Your task to perform on an android device: toggle wifi Image 0: 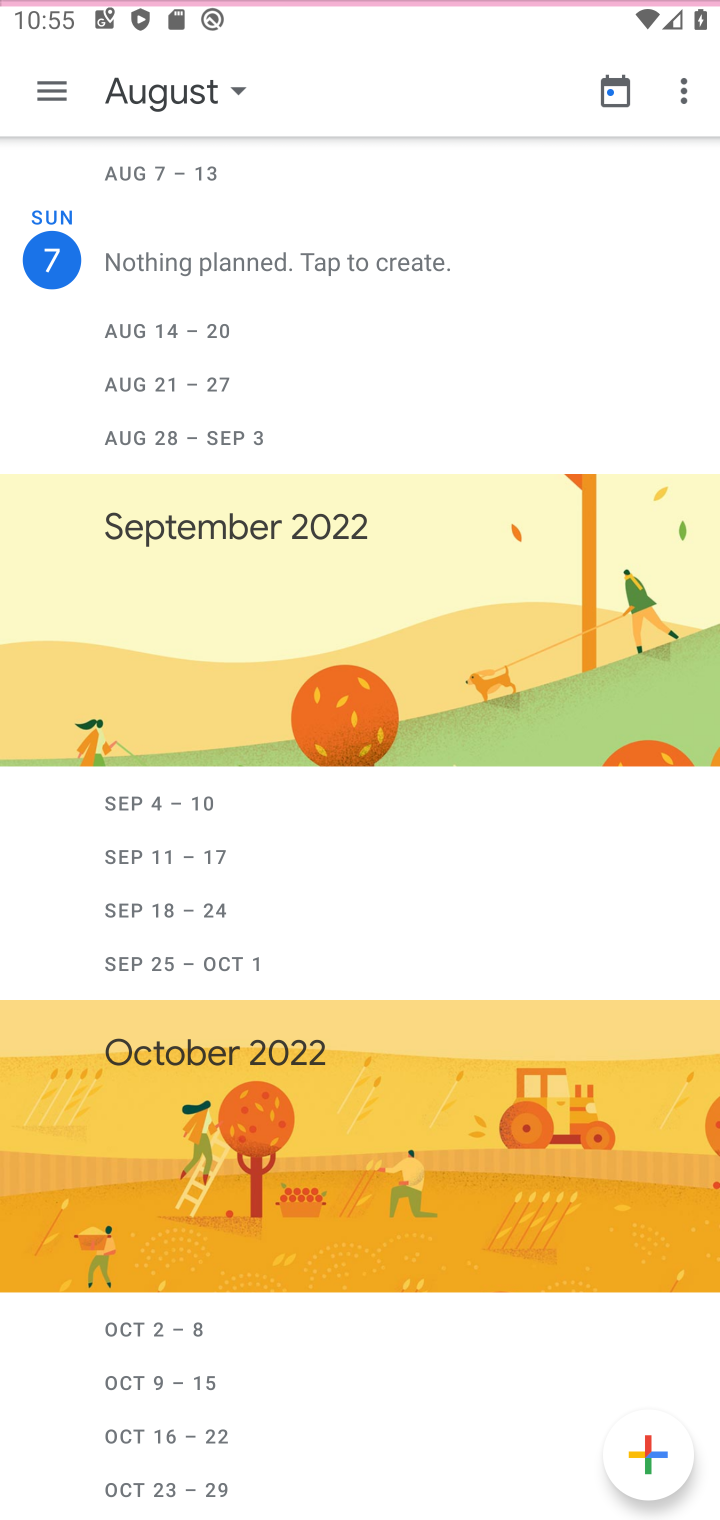
Step 0: press back button
Your task to perform on an android device: toggle wifi Image 1: 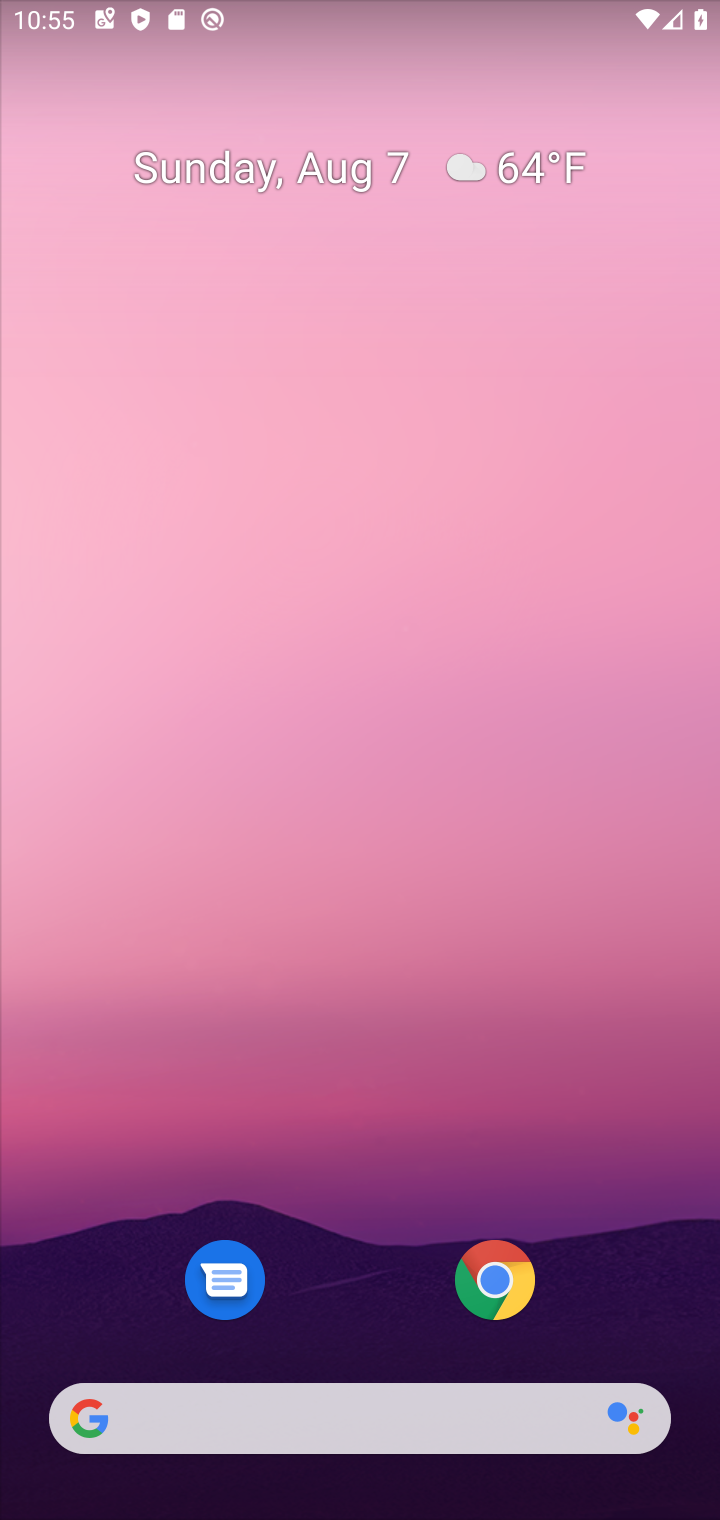
Step 1: press back button
Your task to perform on an android device: toggle wifi Image 2: 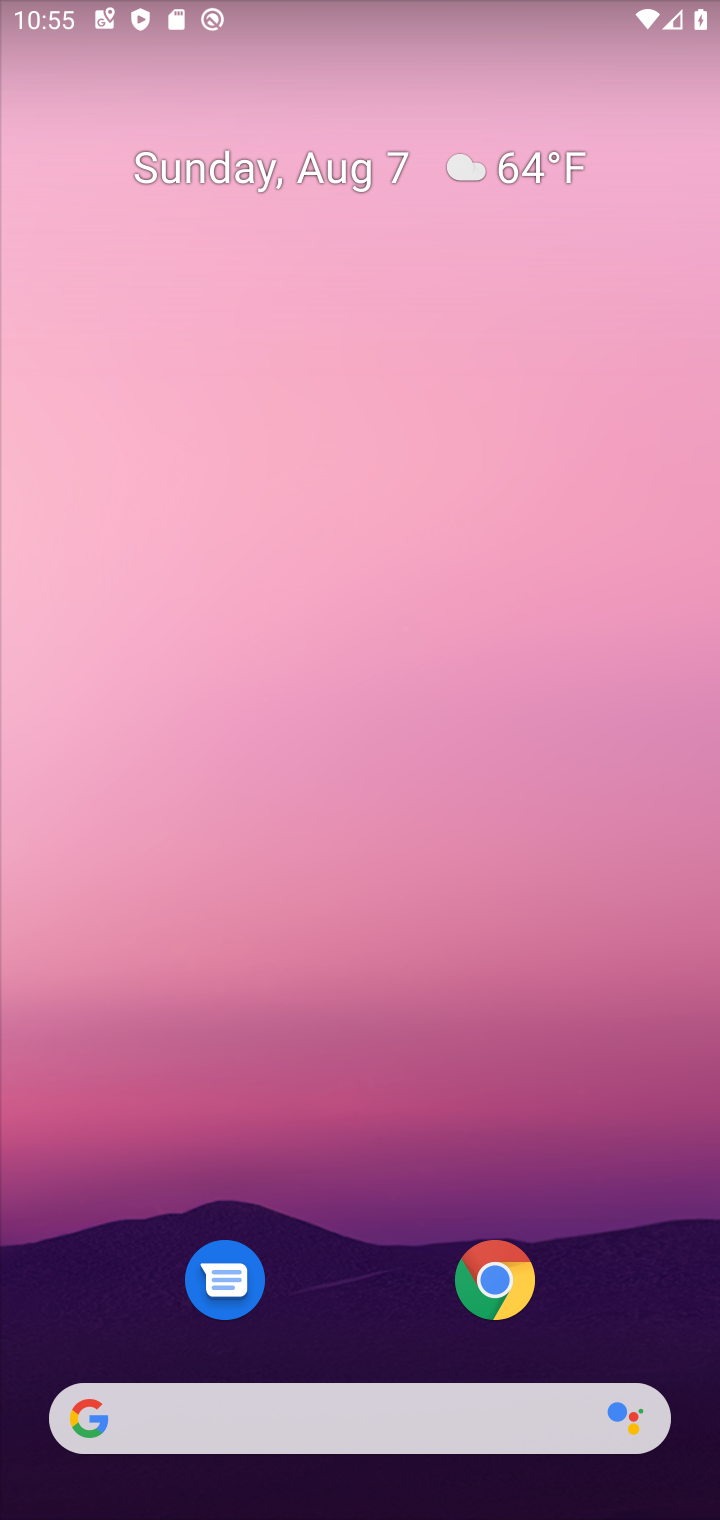
Step 2: drag from (598, 12) to (376, 1182)
Your task to perform on an android device: toggle wifi Image 3: 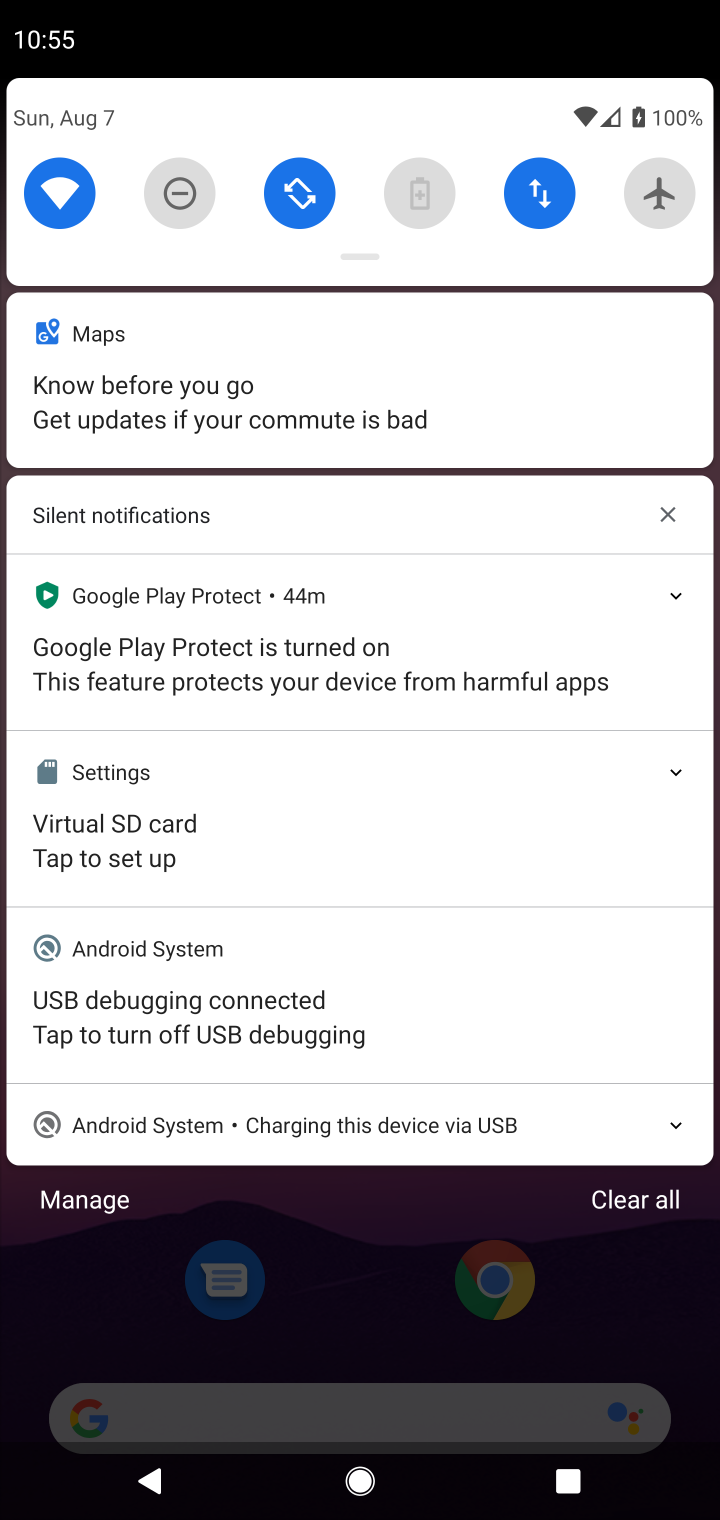
Step 3: click (65, 187)
Your task to perform on an android device: toggle wifi Image 4: 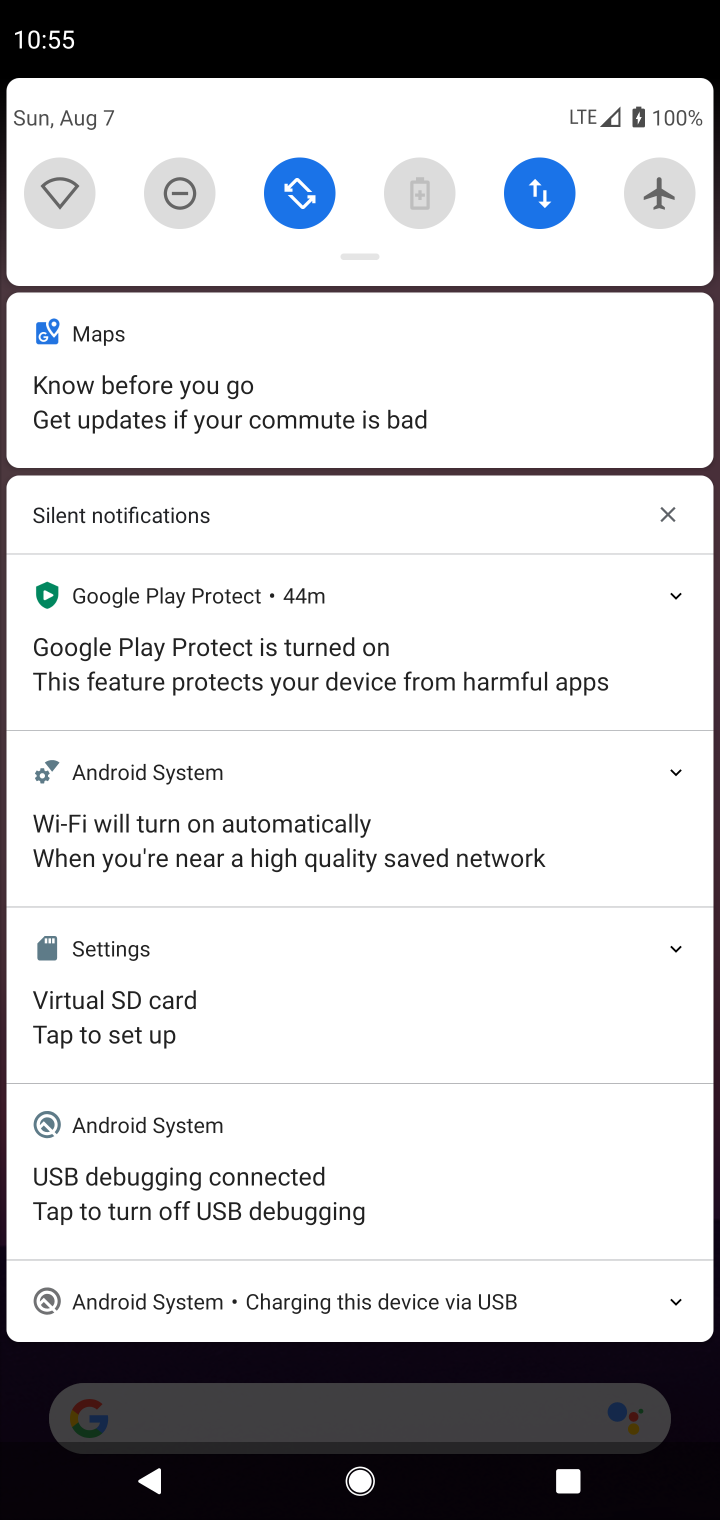
Step 4: task complete